Your task to perform on an android device: turn off wifi Image 0: 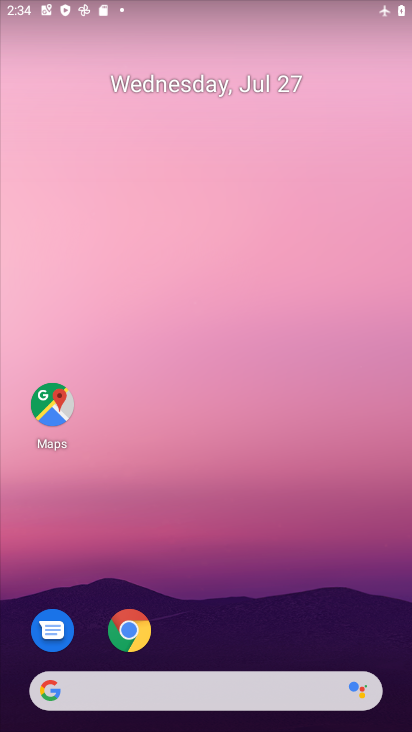
Step 0: drag from (400, 708) to (336, 229)
Your task to perform on an android device: turn off wifi Image 1: 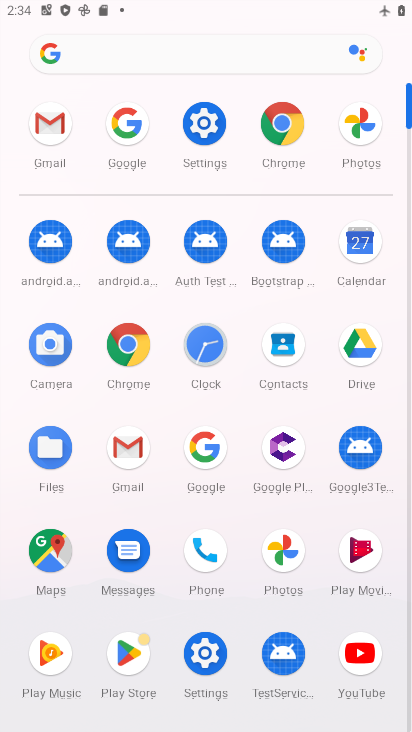
Step 1: click (209, 123)
Your task to perform on an android device: turn off wifi Image 2: 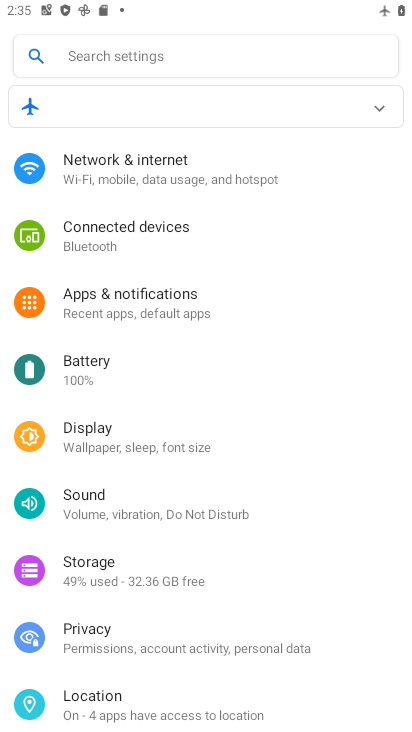
Step 2: click (178, 165)
Your task to perform on an android device: turn off wifi Image 3: 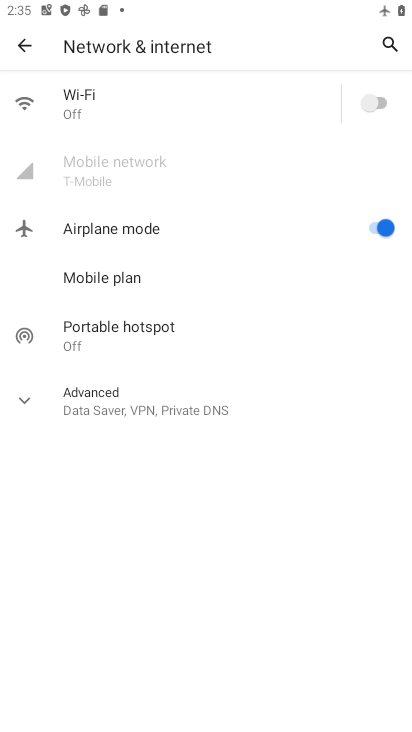
Step 3: click (380, 95)
Your task to perform on an android device: turn off wifi Image 4: 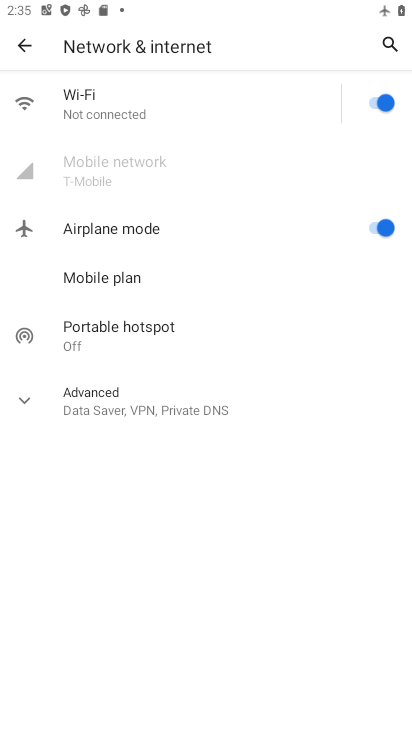
Step 4: click (359, 110)
Your task to perform on an android device: turn off wifi Image 5: 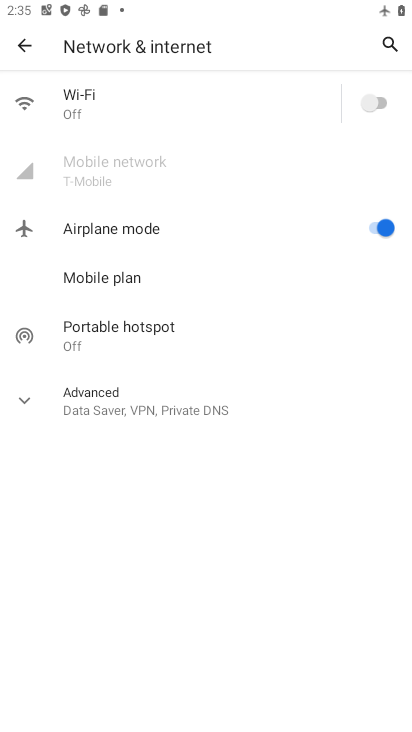
Step 5: task complete